Your task to perform on an android device: change the clock style Image 0: 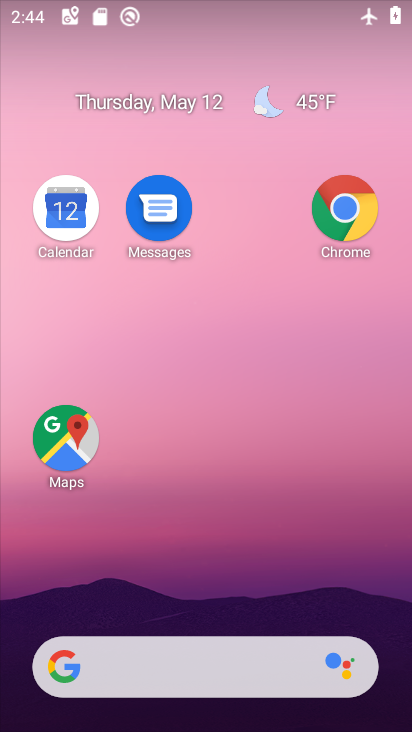
Step 0: drag from (219, 670) to (270, 339)
Your task to perform on an android device: change the clock style Image 1: 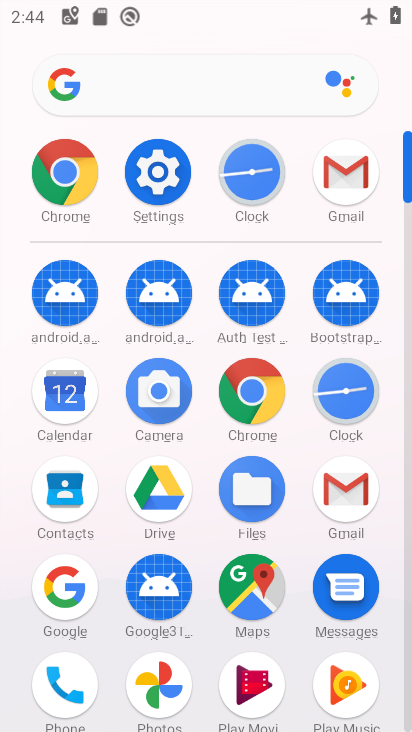
Step 1: click (328, 400)
Your task to perform on an android device: change the clock style Image 2: 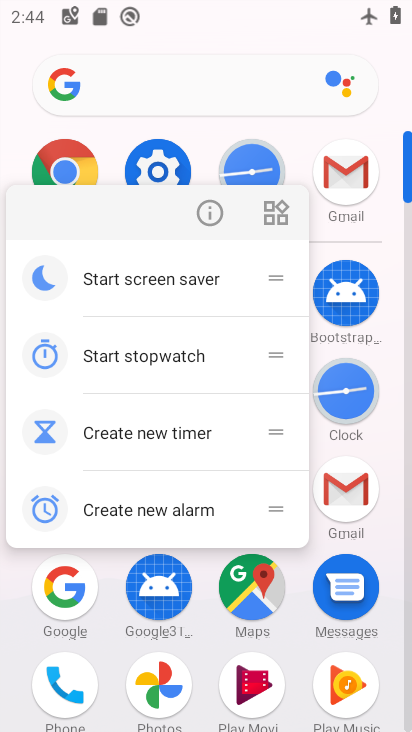
Step 2: click (206, 223)
Your task to perform on an android device: change the clock style Image 3: 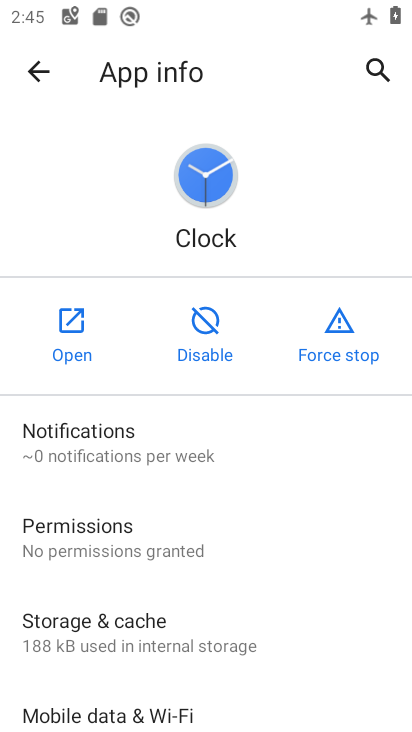
Step 3: click (111, 302)
Your task to perform on an android device: change the clock style Image 4: 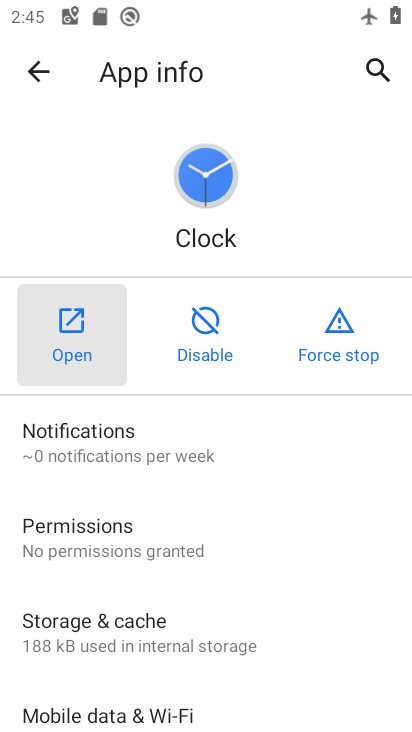
Step 4: click (107, 303)
Your task to perform on an android device: change the clock style Image 5: 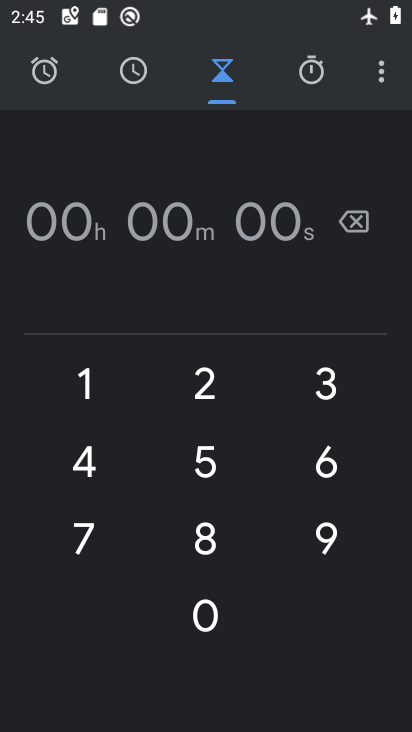
Step 5: click (374, 79)
Your task to perform on an android device: change the clock style Image 6: 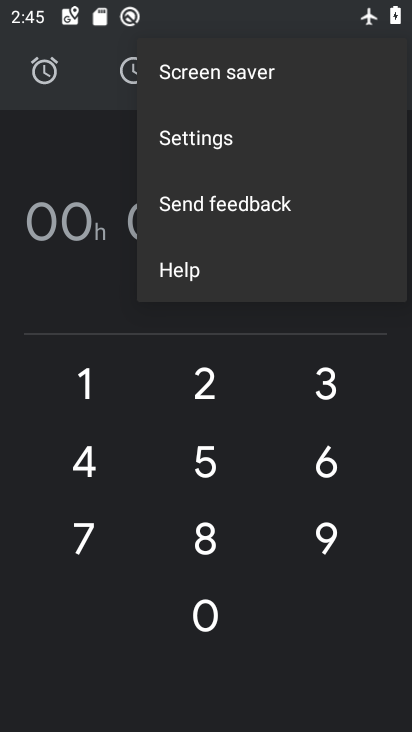
Step 6: click (228, 116)
Your task to perform on an android device: change the clock style Image 7: 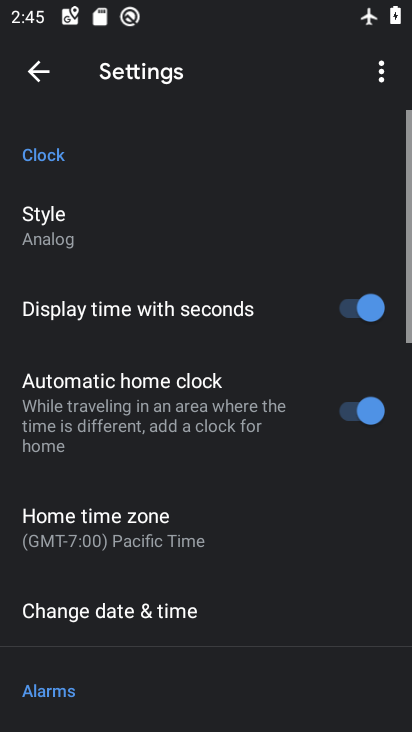
Step 7: click (79, 255)
Your task to perform on an android device: change the clock style Image 8: 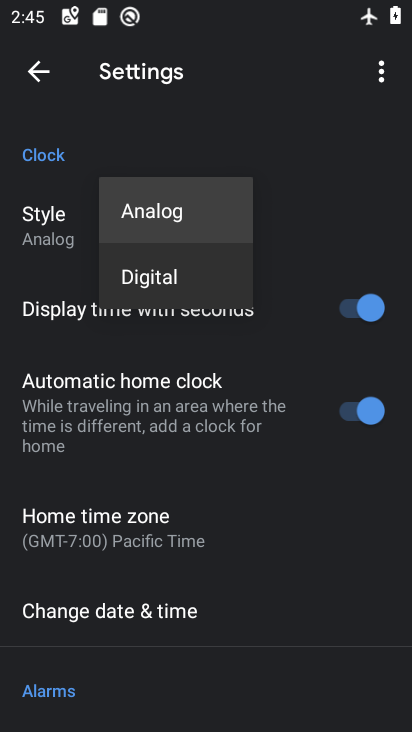
Step 8: click (154, 286)
Your task to perform on an android device: change the clock style Image 9: 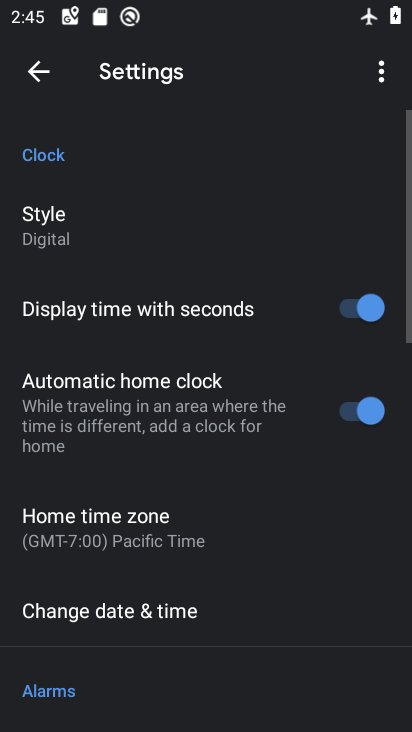
Step 9: task complete